Your task to perform on an android device: set the stopwatch Image 0: 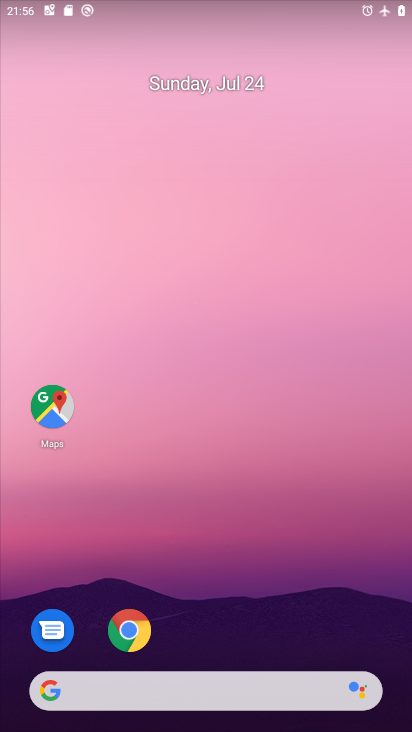
Step 0: drag from (222, 648) to (234, 23)
Your task to perform on an android device: set the stopwatch Image 1: 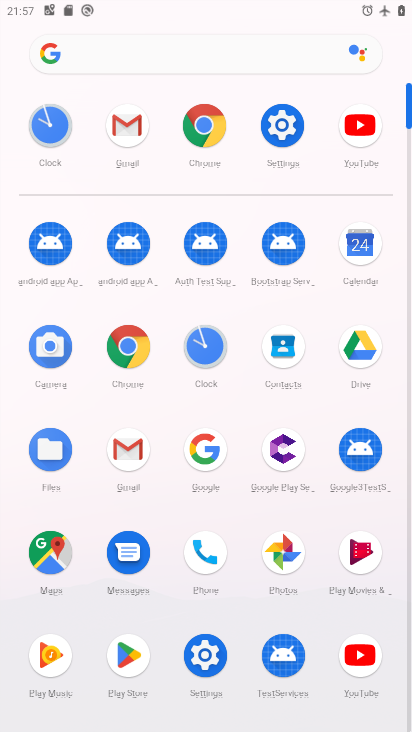
Step 1: click (216, 344)
Your task to perform on an android device: set the stopwatch Image 2: 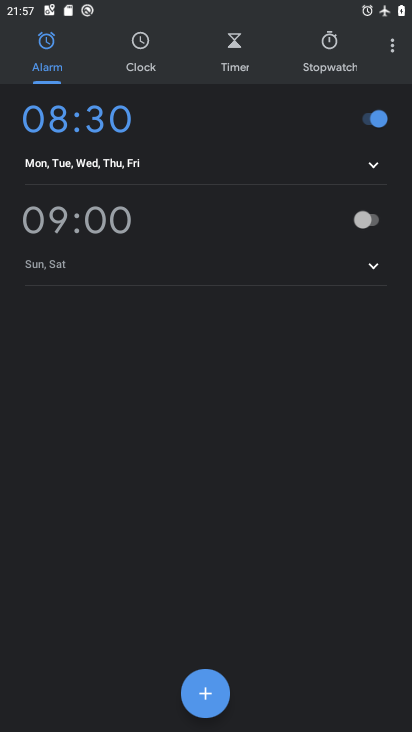
Step 2: click (332, 42)
Your task to perform on an android device: set the stopwatch Image 3: 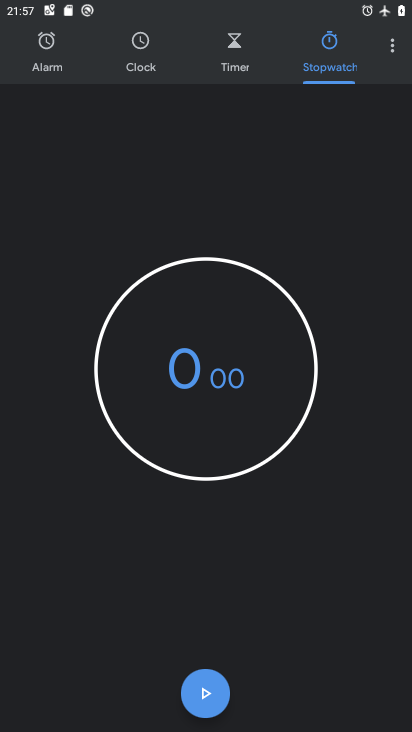
Step 3: task complete